Your task to perform on an android device: Open display settings Image 0: 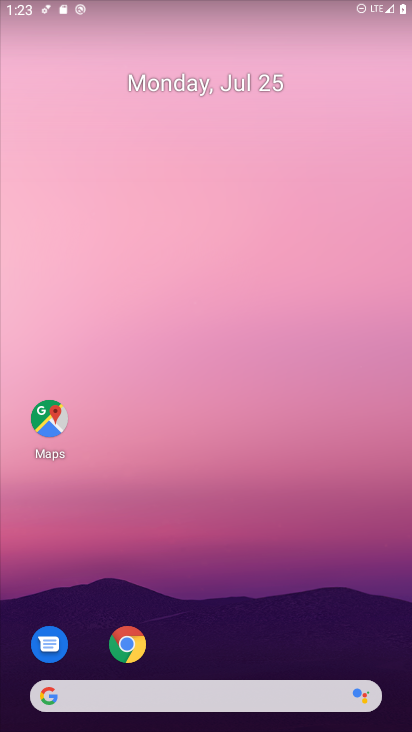
Step 0: press home button
Your task to perform on an android device: Open display settings Image 1: 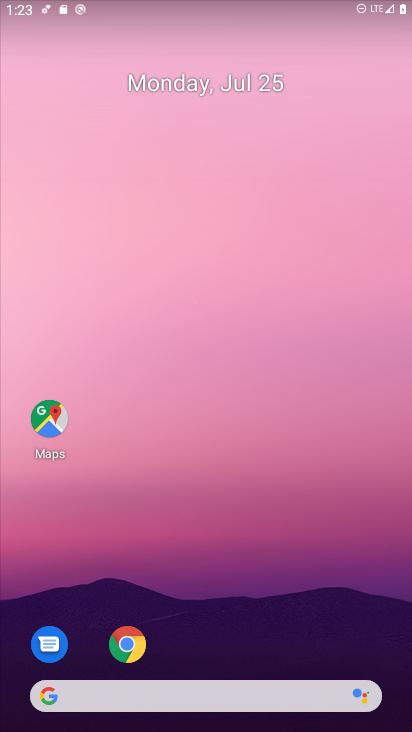
Step 1: drag from (213, 728) to (212, 52)
Your task to perform on an android device: Open display settings Image 2: 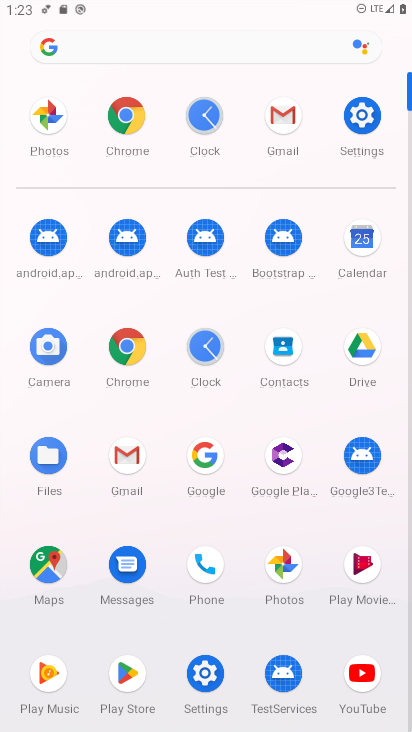
Step 2: click (362, 118)
Your task to perform on an android device: Open display settings Image 3: 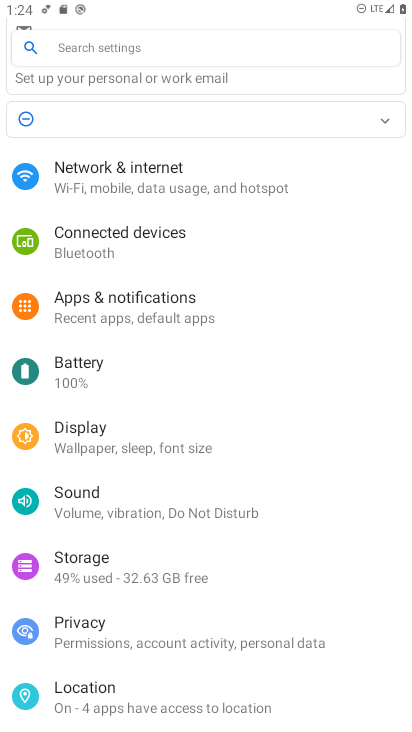
Step 3: click (76, 440)
Your task to perform on an android device: Open display settings Image 4: 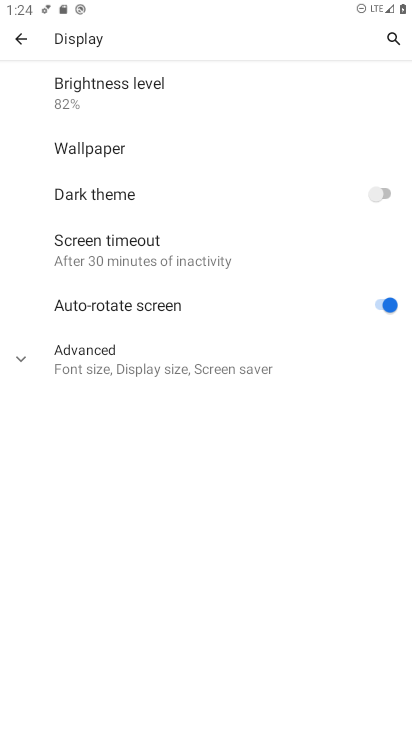
Step 4: task complete